Your task to perform on an android device: View the shopping cart on bestbuy. Search for "razer nari" on bestbuy, select the first entry, and add it to the cart. Image 0: 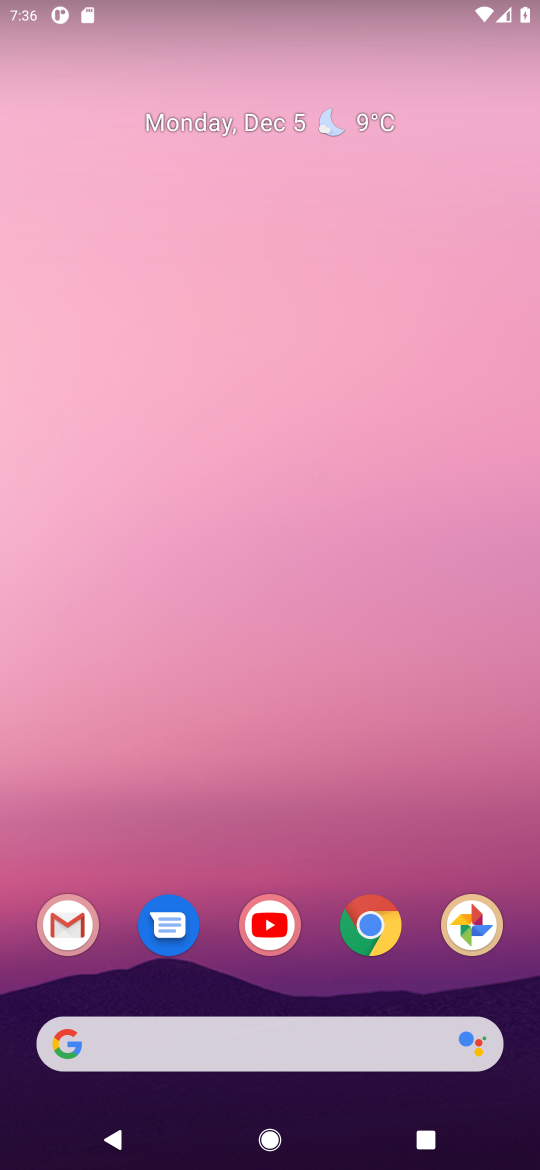
Step 0: click (376, 930)
Your task to perform on an android device: View the shopping cart on bestbuy. Search for "razer nari" on bestbuy, select the first entry, and add it to the cart. Image 1: 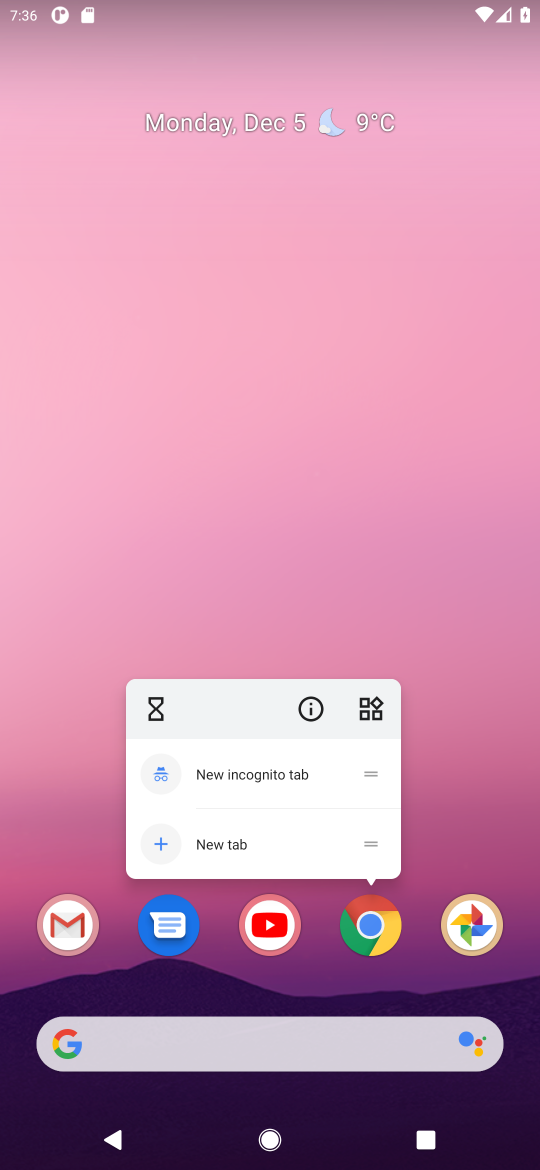
Step 1: click (376, 930)
Your task to perform on an android device: View the shopping cart on bestbuy. Search for "razer nari" on bestbuy, select the first entry, and add it to the cart. Image 2: 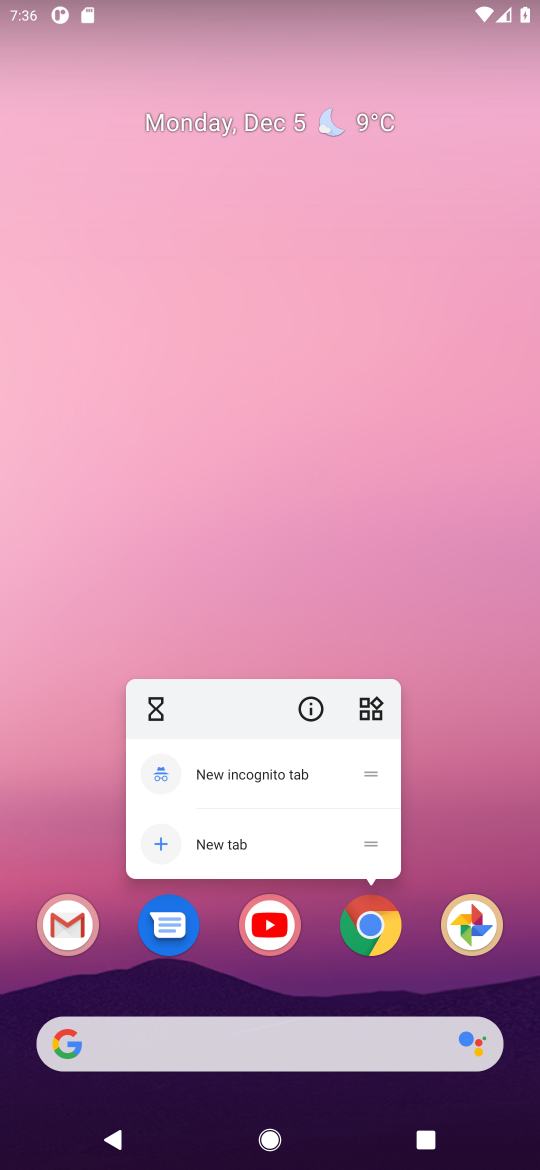
Step 2: click (376, 930)
Your task to perform on an android device: View the shopping cart on bestbuy. Search for "razer nari" on bestbuy, select the first entry, and add it to the cart. Image 3: 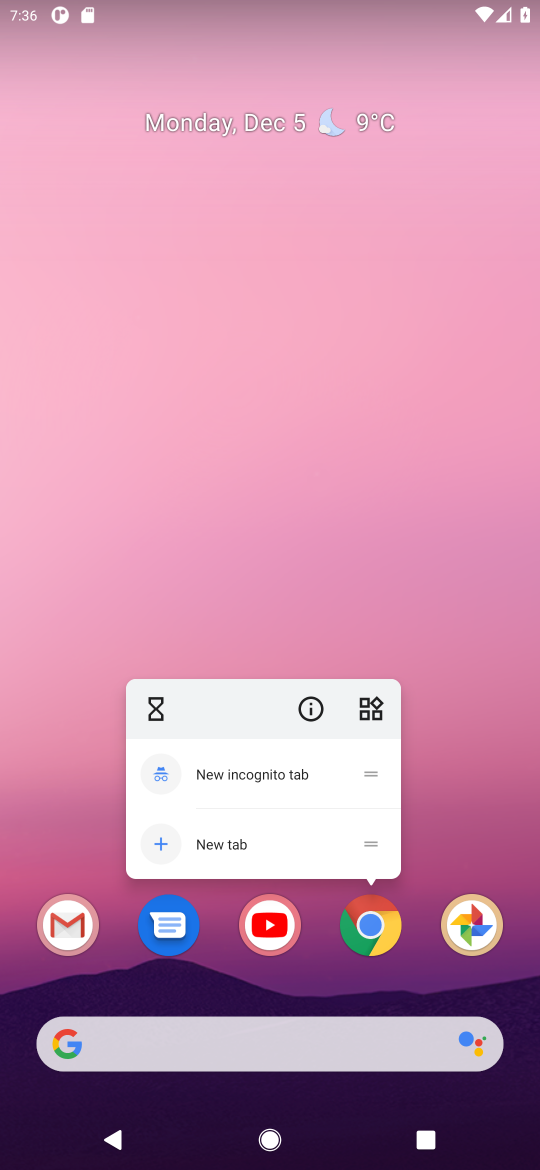
Step 3: click (371, 926)
Your task to perform on an android device: View the shopping cart on bestbuy. Search for "razer nari" on bestbuy, select the first entry, and add it to the cart. Image 4: 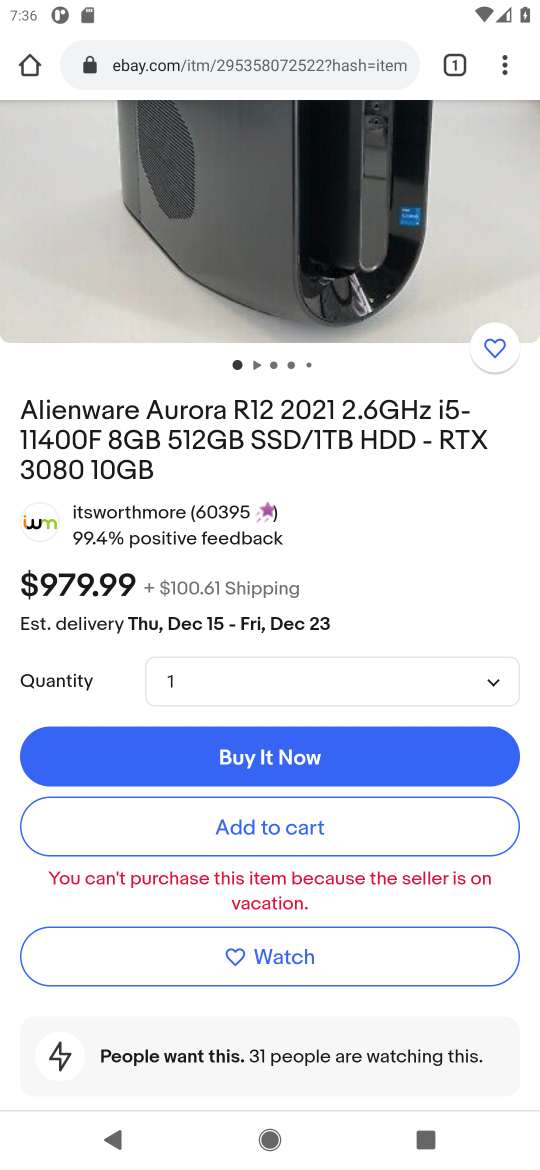
Step 4: click (177, 61)
Your task to perform on an android device: View the shopping cart on bestbuy. Search for "razer nari" on bestbuy, select the first entry, and add it to the cart. Image 5: 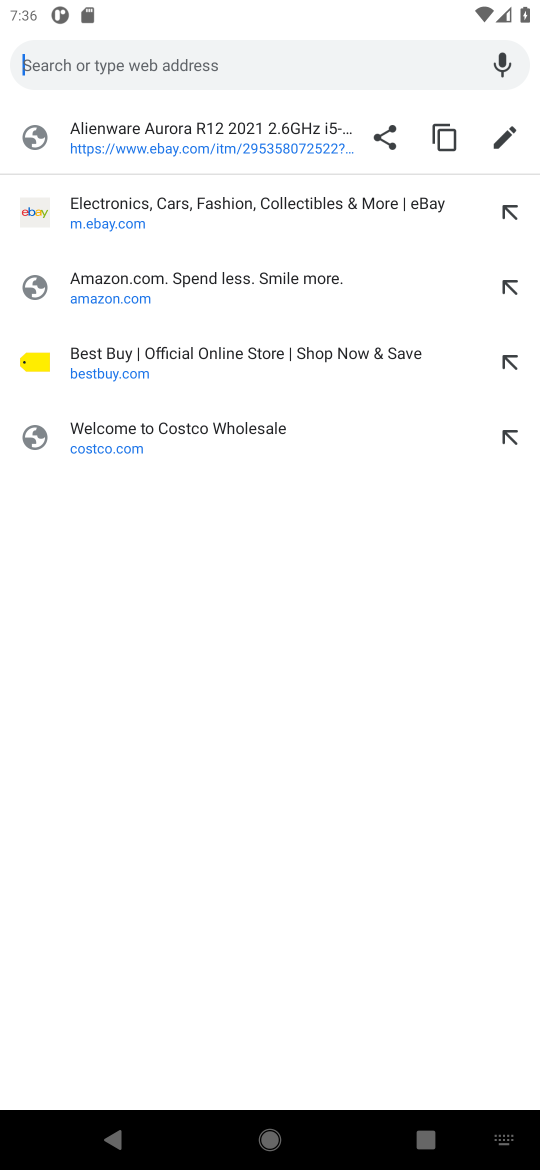
Step 5: click (78, 360)
Your task to perform on an android device: View the shopping cart on bestbuy. Search for "razer nari" on bestbuy, select the first entry, and add it to the cart. Image 6: 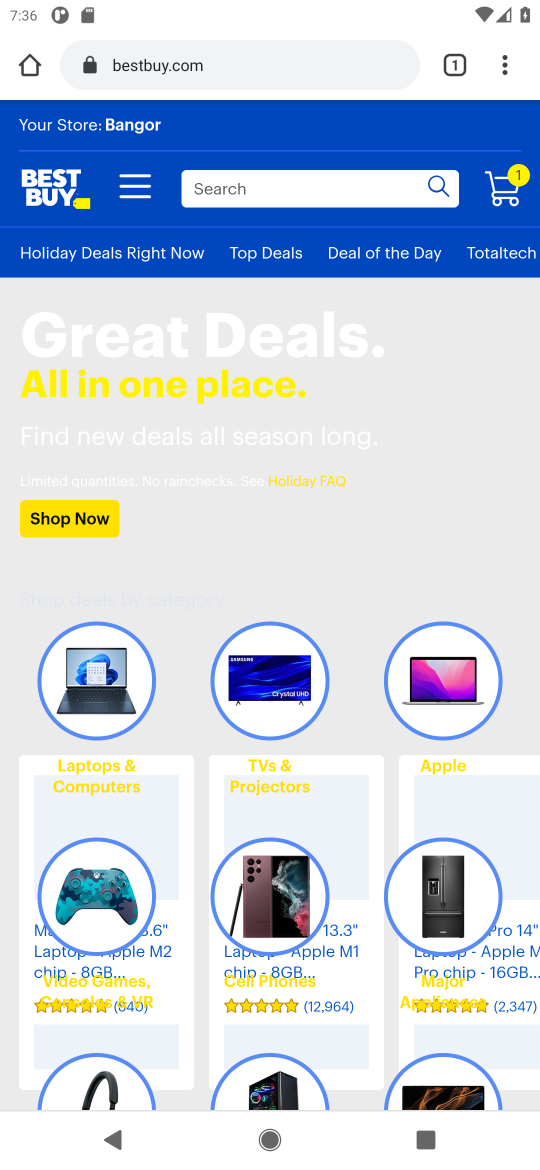
Step 6: click (505, 200)
Your task to perform on an android device: View the shopping cart on bestbuy. Search for "razer nari" on bestbuy, select the first entry, and add it to the cart. Image 7: 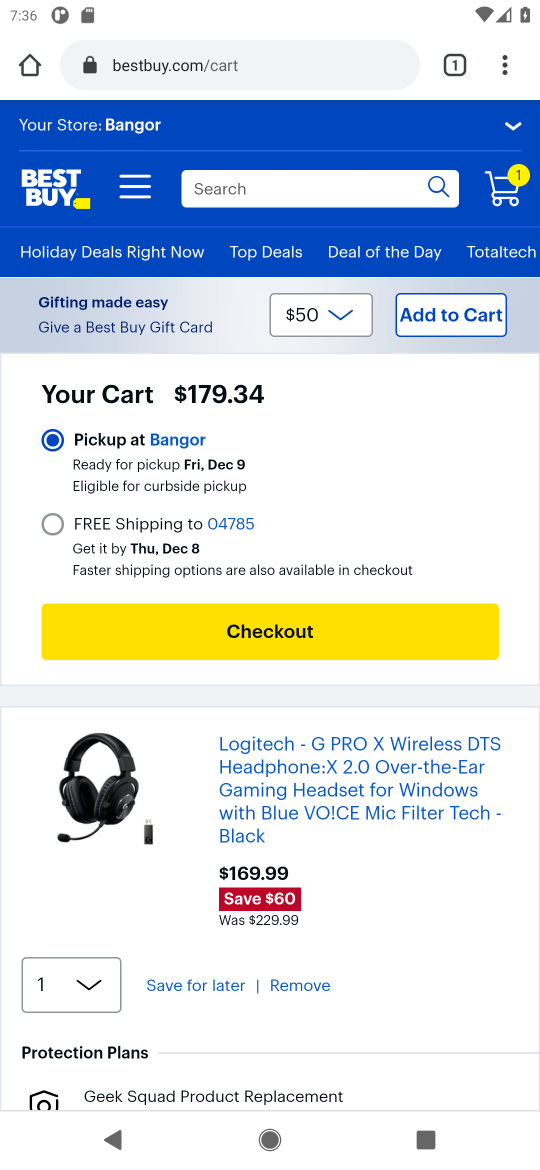
Step 7: drag from (328, 734) to (337, 469)
Your task to perform on an android device: View the shopping cart on bestbuy. Search for "razer nari" on bestbuy, select the first entry, and add it to the cart. Image 8: 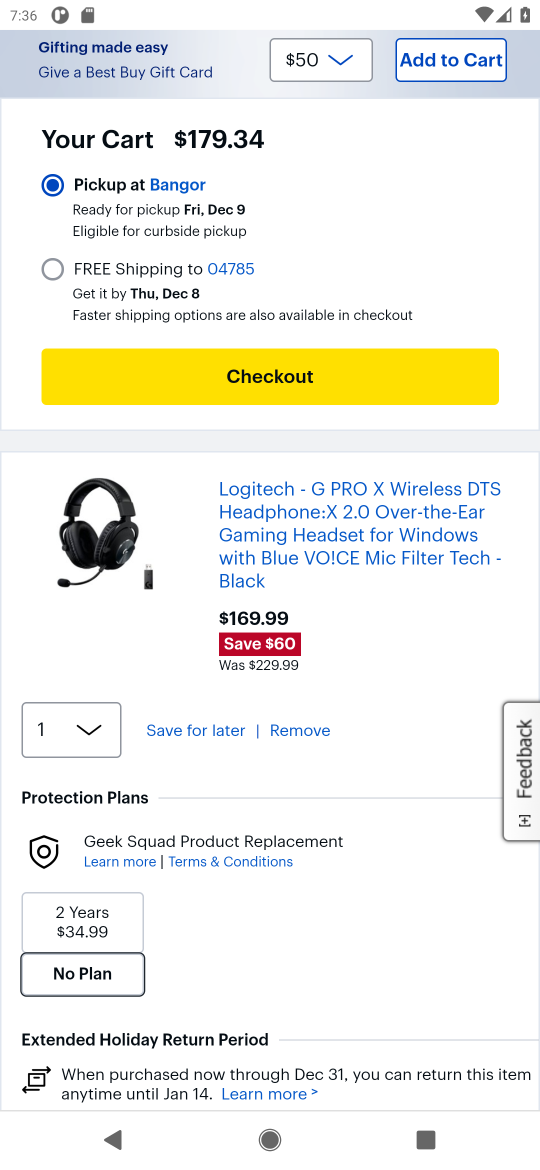
Step 8: drag from (381, 230) to (362, 540)
Your task to perform on an android device: View the shopping cart on bestbuy. Search for "razer nari" on bestbuy, select the first entry, and add it to the cart. Image 9: 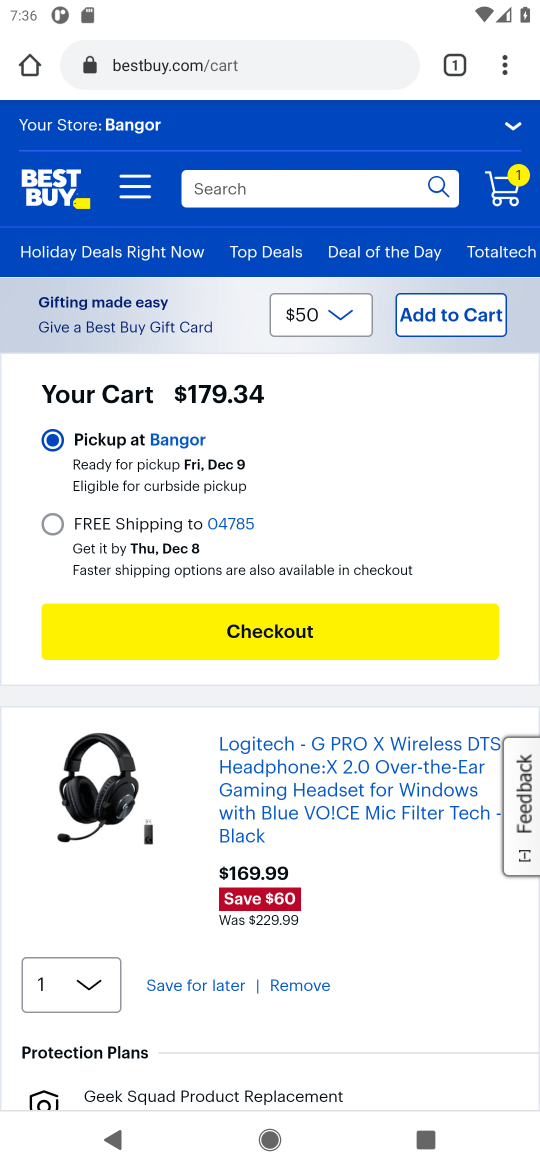
Step 9: click (227, 198)
Your task to perform on an android device: View the shopping cart on bestbuy. Search for "razer nari" on bestbuy, select the first entry, and add it to the cart. Image 10: 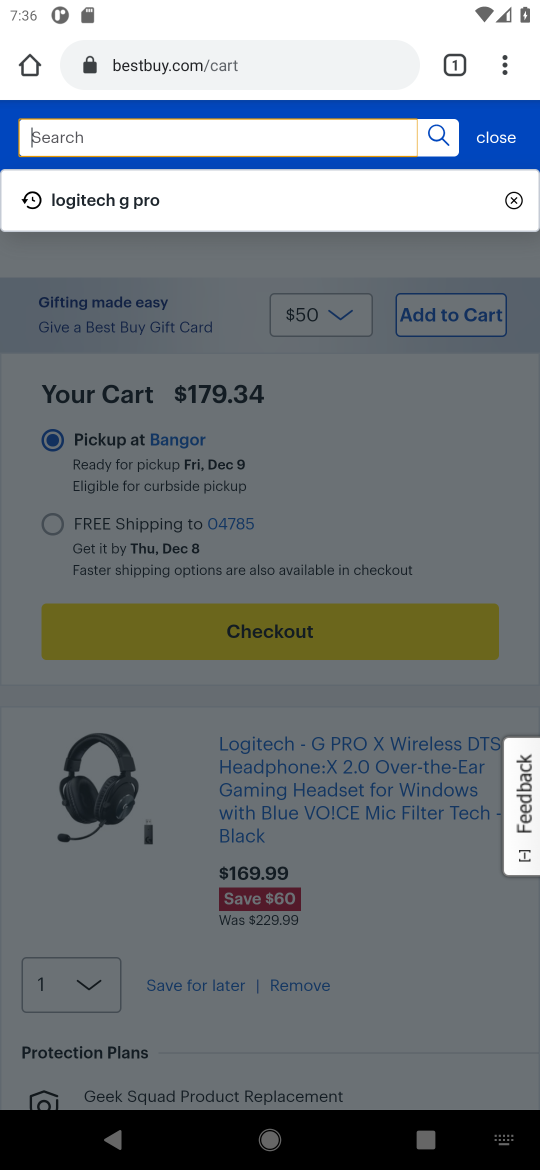
Step 10: type "razer nari"
Your task to perform on an android device: View the shopping cart on bestbuy. Search for "razer nari" on bestbuy, select the first entry, and add it to the cart. Image 11: 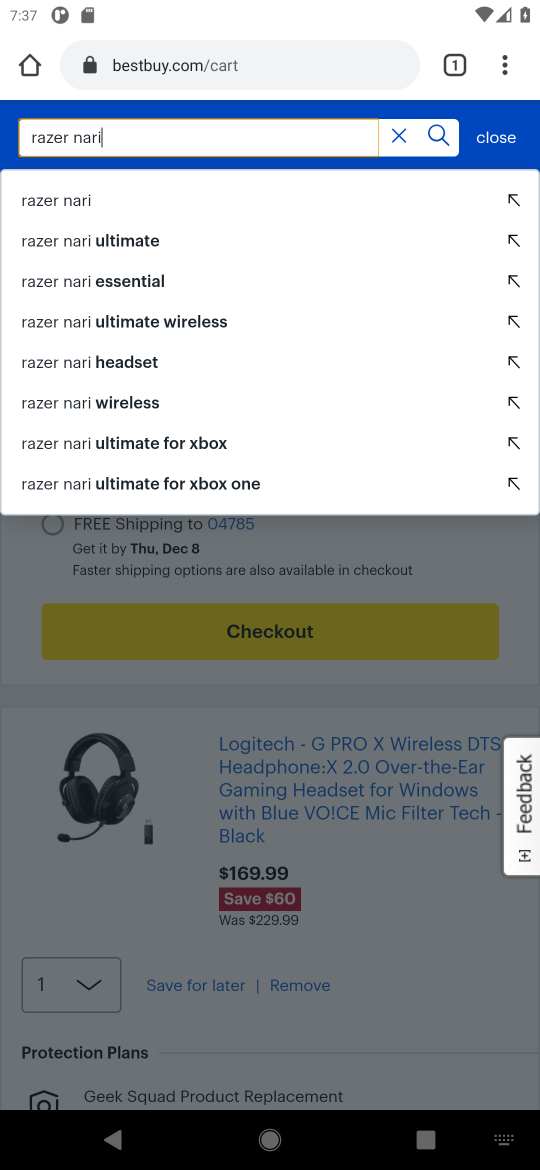
Step 11: click (58, 201)
Your task to perform on an android device: View the shopping cart on bestbuy. Search for "razer nari" on bestbuy, select the first entry, and add it to the cart. Image 12: 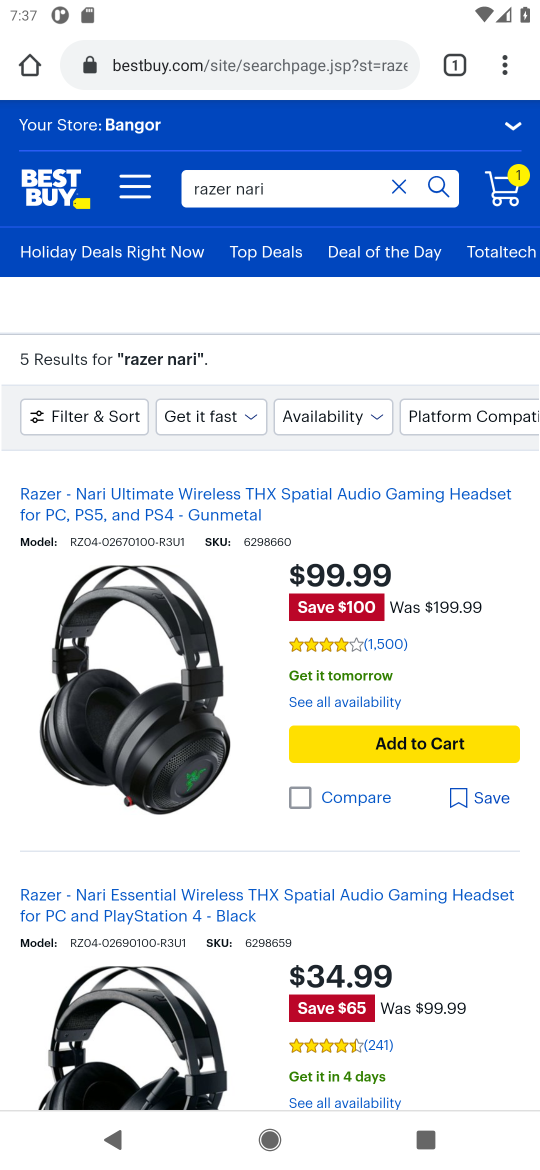
Step 12: click (198, 711)
Your task to perform on an android device: View the shopping cart on bestbuy. Search for "razer nari" on bestbuy, select the first entry, and add it to the cart. Image 13: 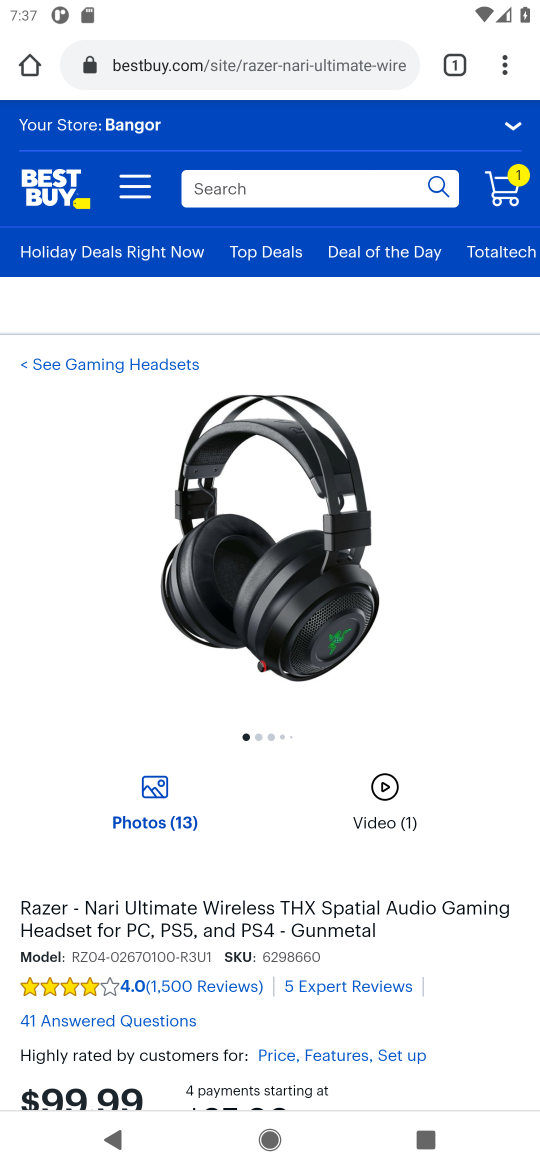
Step 13: drag from (265, 796) to (289, 412)
Your task to perform on an android device: View the shopping cart on bestbuy. Search for "razer nari" on bestbuy, select the first entry, and add it to the cart. Image 14: 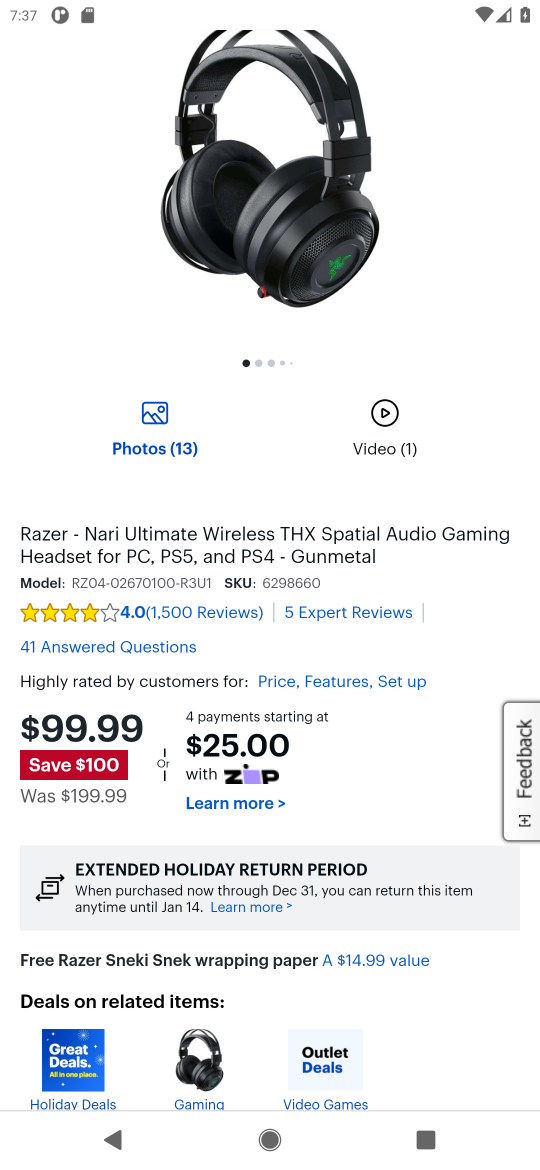
Step 14: drag from (359, 748) to (342, 329)
Your task to perform on an android device: View the shopping cart on bestbuy. Search for "razer nari" on bestbuy, select the first entry, and add it to the cart. Image 15: 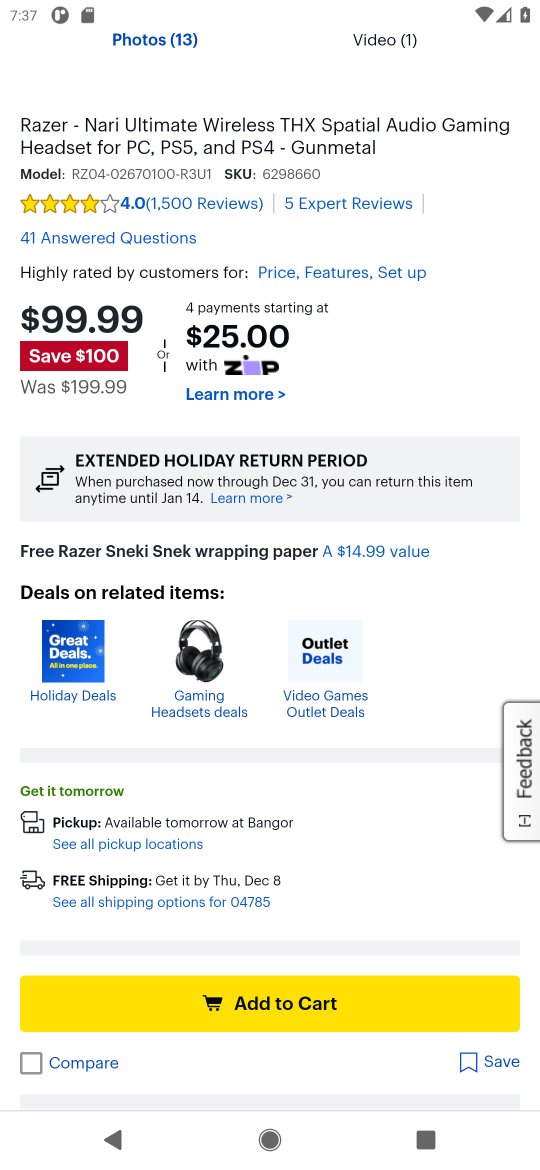
Step 15: drag from (367, 803) to (329, 478)
Your task to perform on an android device: View the shopping cart on bestbuy. Search for "razer nari" on bestbuy, select the first entry, and add it to the cart. Image 16: 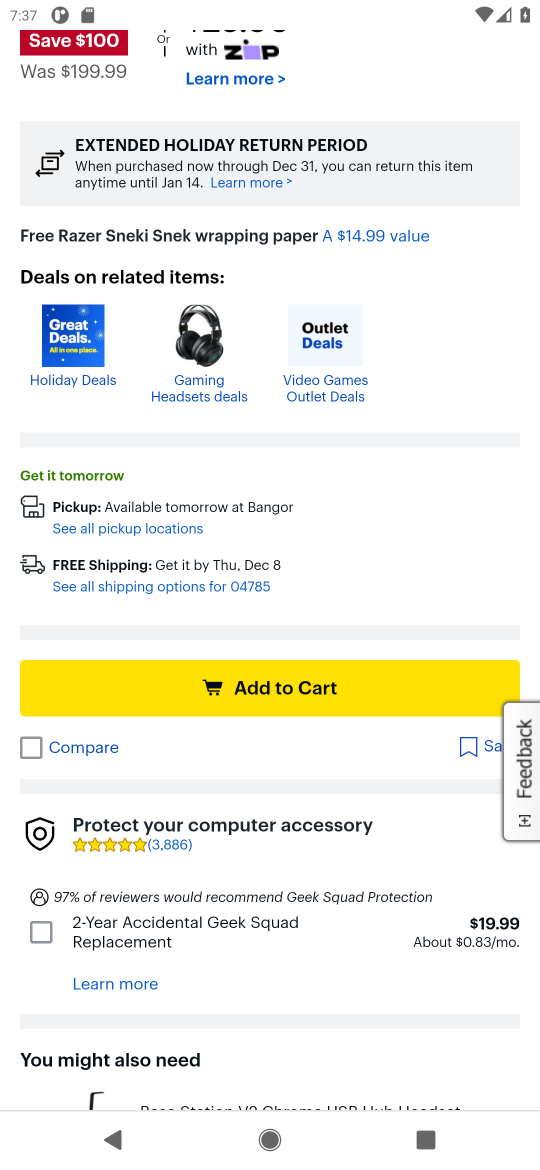
Step 16: click (269, 682)
Your task to perform on an android device: View the shopping cart on bestbuy. Search for "razer nari" on bestbuy, select the first entry, and add it to the cart. Image 17: 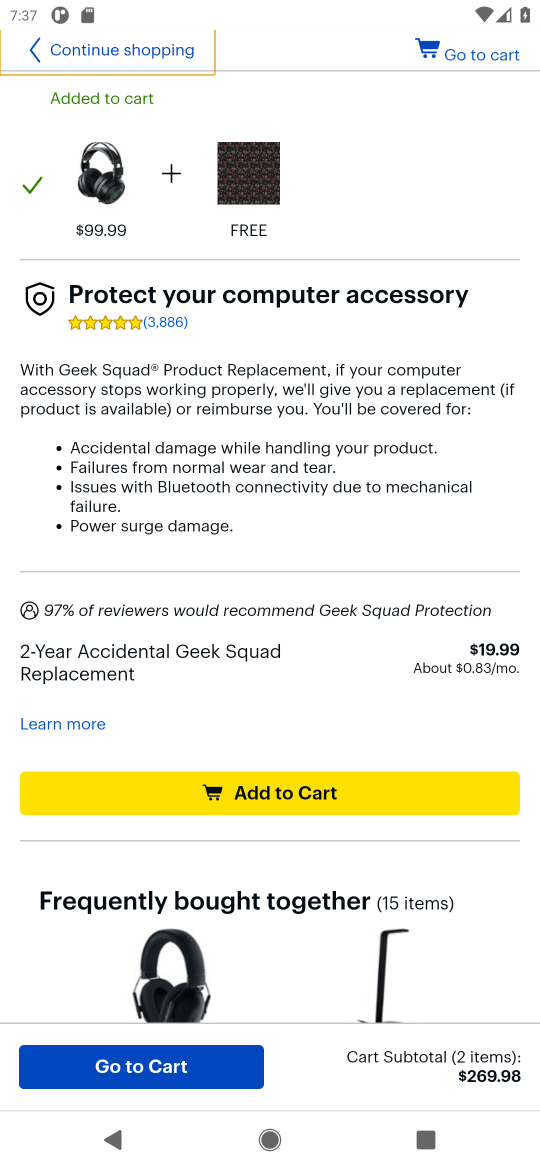
Step 17: task complete